Your task to perform on an android device: turn on javascript in the chrome app Image 0: 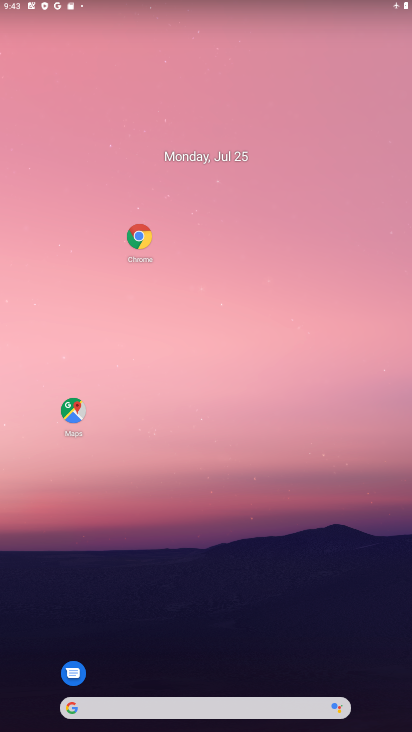
Step 0: click (134, 242)
Your task to perform on an android device: turn on javascript in the chrome app Image 1: 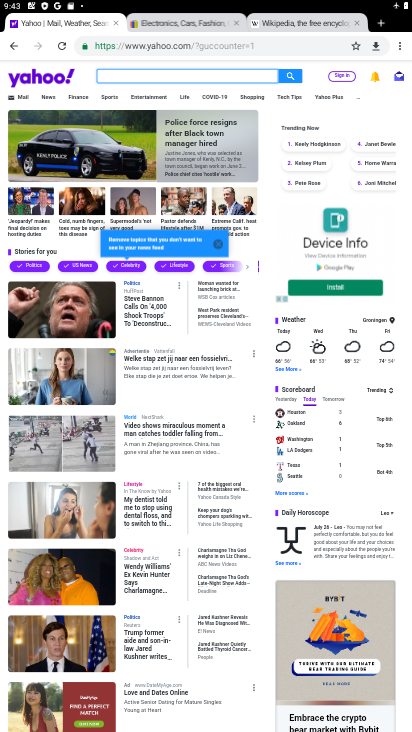
Step 1: click (398, 45)
Your task to perform on an android device: turn on javascript in the chrome app Image 2: 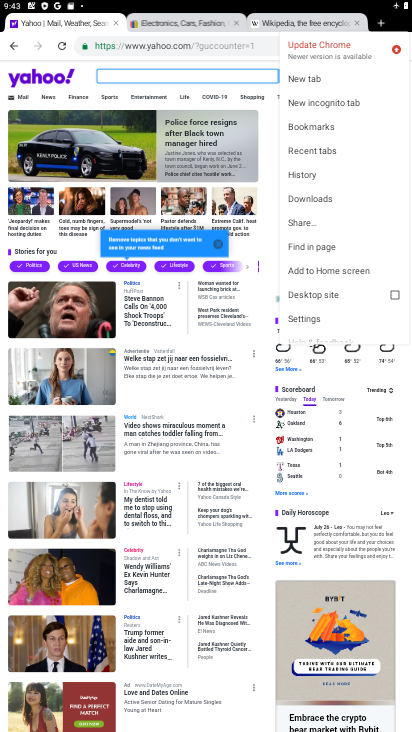
Step 2: click (321, 309)
Your task to perform on an android device: turn on javascript in the chrome app Image 3: 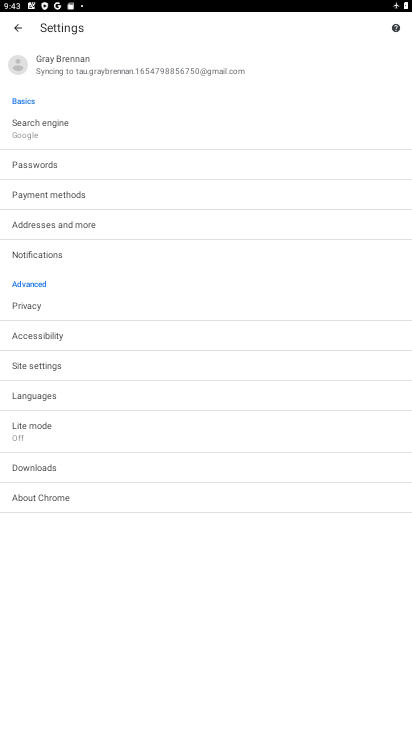
Step 3: click (121, 373)
Your task to perform on an android device: turn on javascript in the chrome app Image 4: 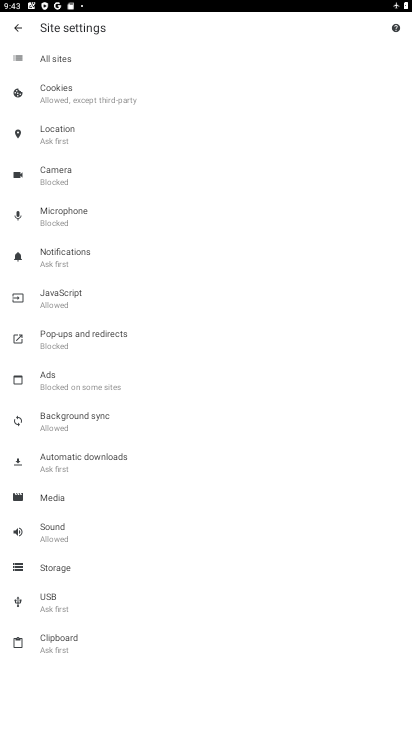
Step 4: click (48, 301)
Your task to perform on an android device: turn on javascript in the chrome app Image 5: 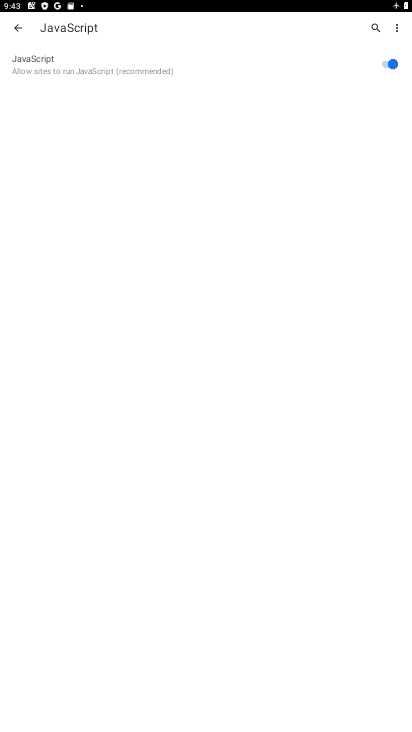
Step 5: task complete